Your task to perform on an android device: delete the emails in spam in the gmail app Image 0: 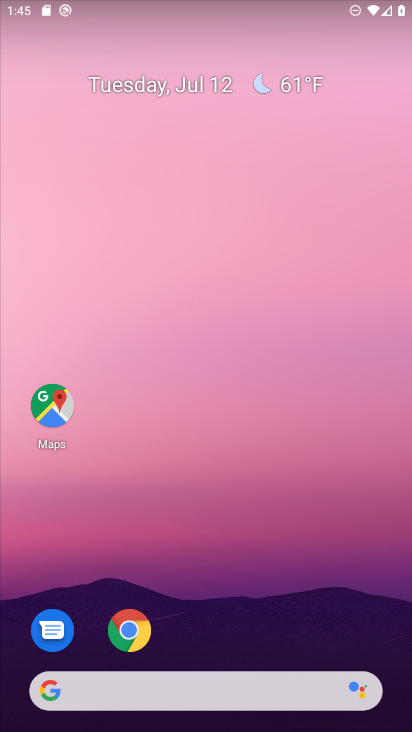
Step 0: drag from (189, 623) to (205, 89)
Your task to perform on an android device: delete the emails in spam in the gmail app Image 1: 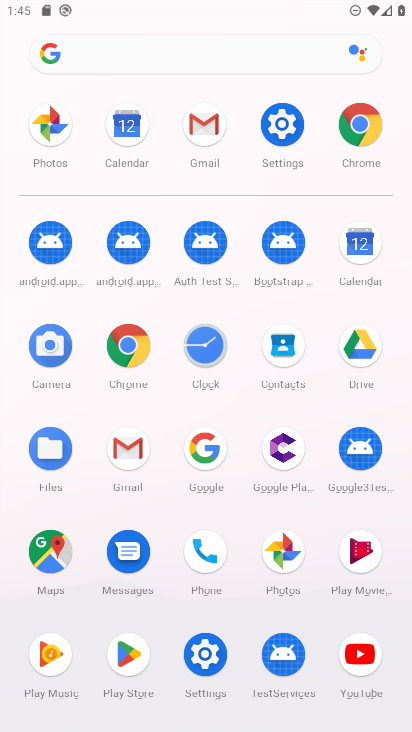
Step 1: click (199, 114)
Your task to perform on an android device: delete the emails in spam in the gmail app Image 2: 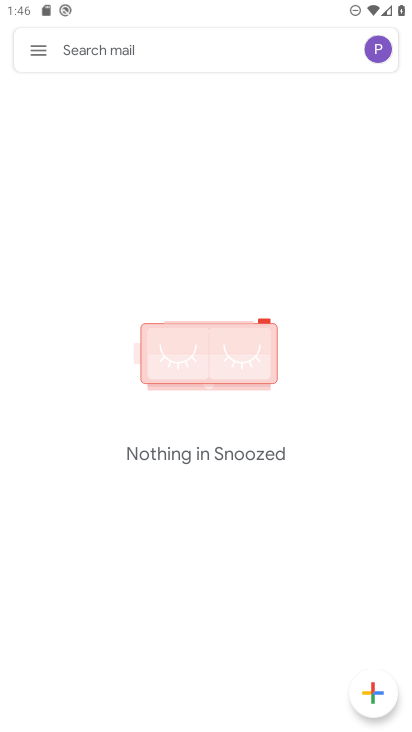
Step 2: click (28, 49)
Your task to perform on an android device: delete the emails in spam in the gmail app Image 3: 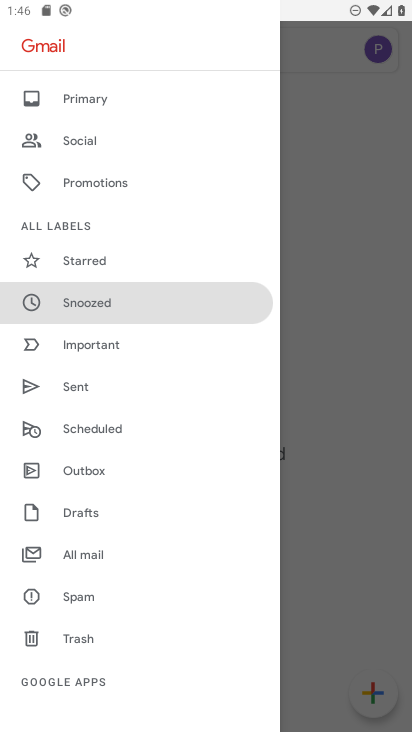
Step 3: click (88, 598)
Your task to perform on an android device: delete the emails in spam in the gmail app Image 4: 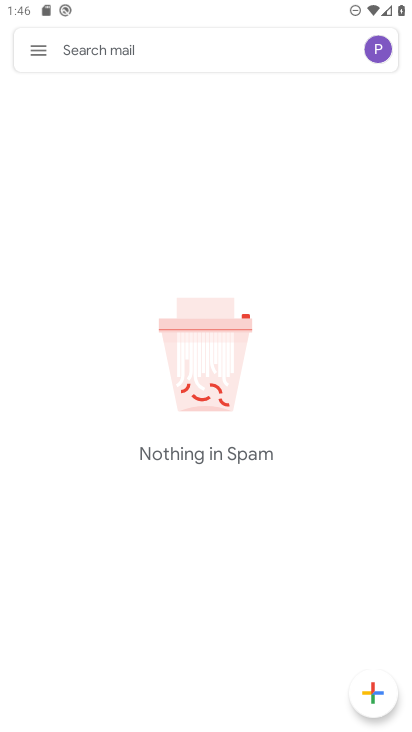
Step 4: task complete